Your task to perform on an android device: Open Reddit.com Image 0: 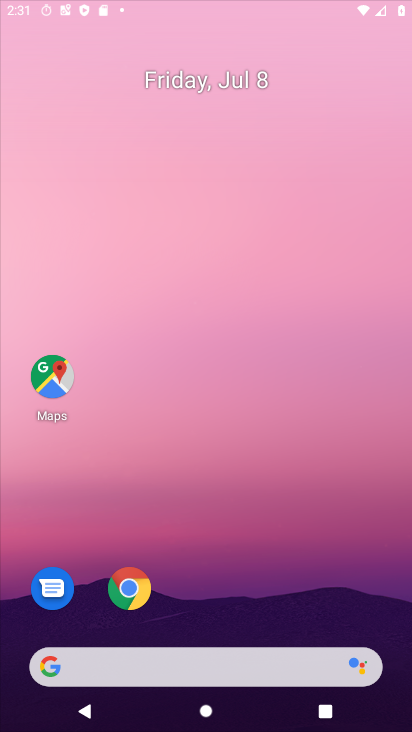
Step 0: press home button
Your task to perform on an android device: Open Reddit.com Image 1: 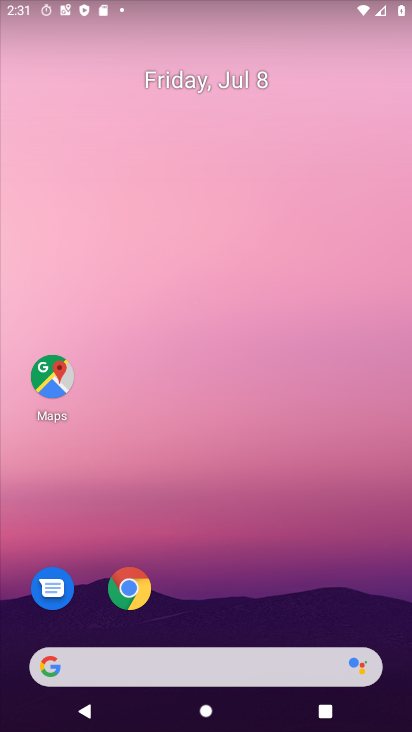
Step 1: click (47, 662)
Your task to perform on an android device: Open Reddit.com Image 2: 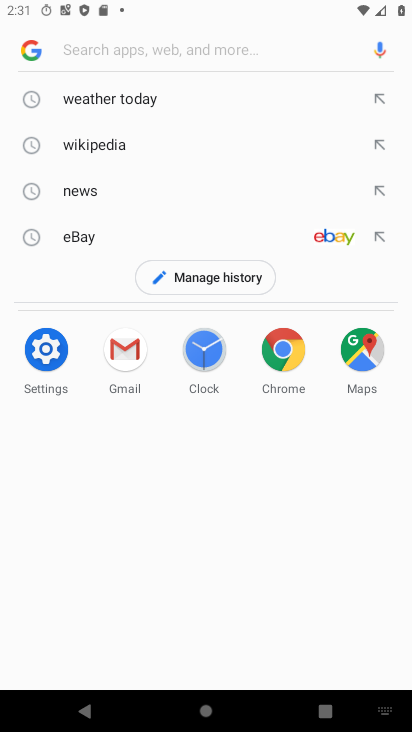
Step 2: type "Reddit.com"
Your task to perform on an android device: Open Reddit.com Image 3: 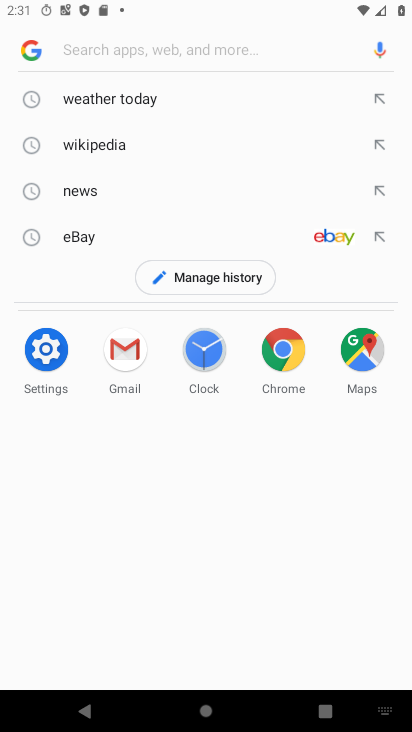
Step 3: click (165, 52)
Your task to perform on an android device: Open Reddit.com Image 4: 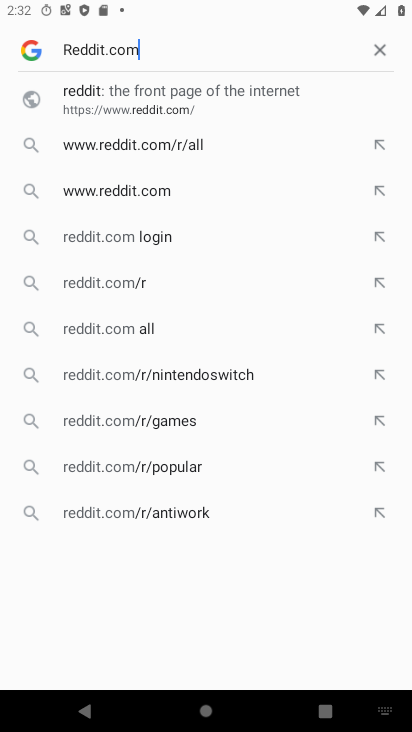
Step 4: click (118, 197)
Your task to perform on an android device: Open Reddit.com Image 5: 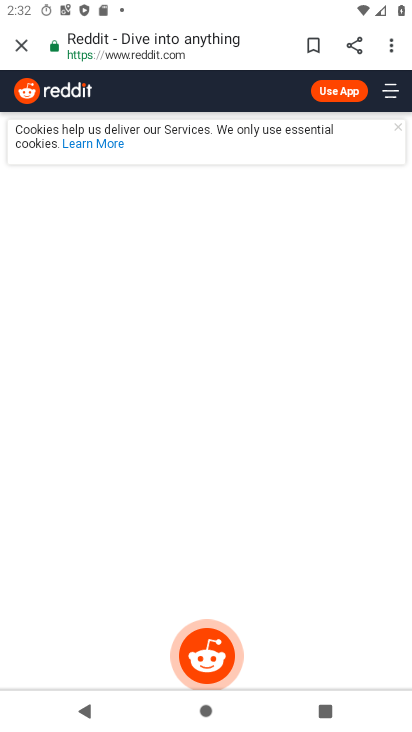
Step 5: task complete